Your task to perform on an android device: search for starred emails in the gmail app Image 0: 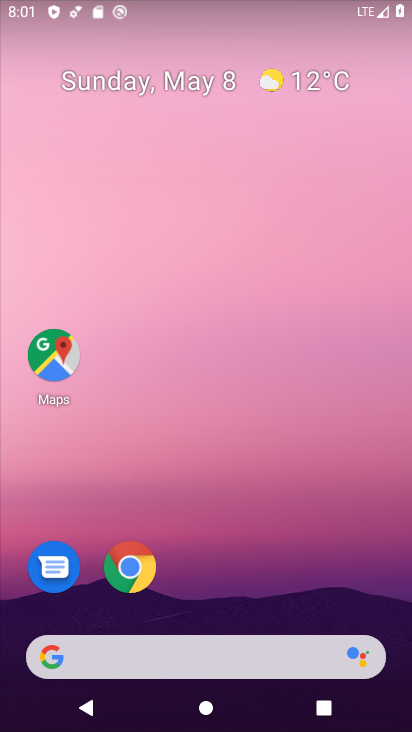
Step 0: click (387, 292)
Your task to perform on an android device: search for starred emails in the gmail app Image 1: 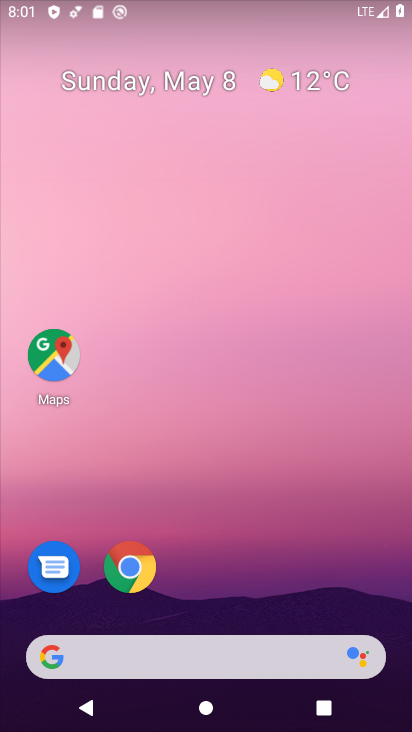
Step 1: drag from (156, 651) to (187, 125)
Your task to perform on an android device: search for starred emails in the gmail app Image 2: 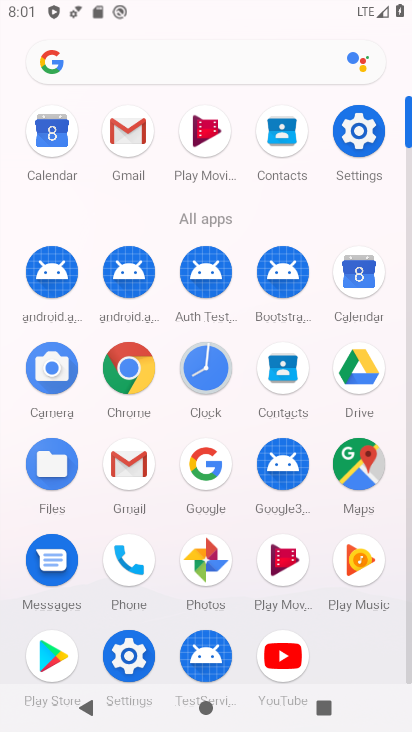
Step 2: click (118, 467)
Your task to perform on an android device: search for starred emails in the gmail app Image 3: 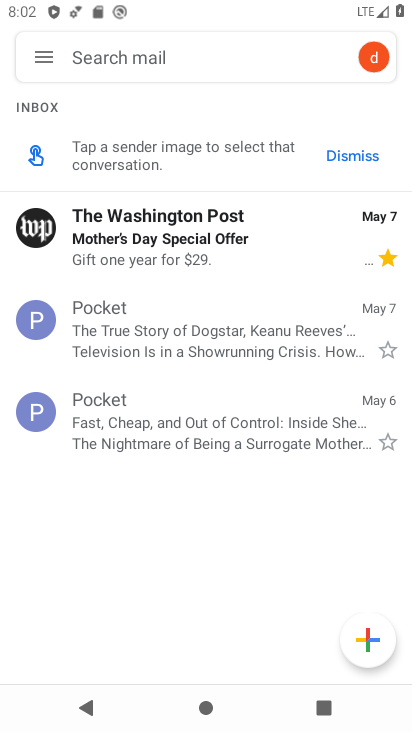
Step 3: click (41, 53)
Your task to perform on an android device: search for starred emails in the gmail app Image 4: 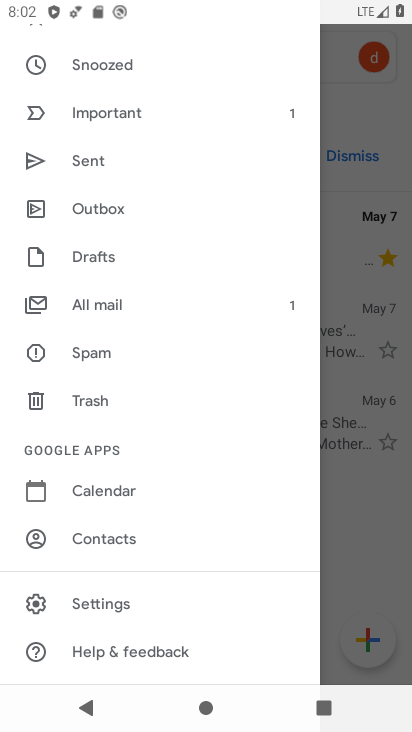
Step 4: drag from (170, 163) to (138, 481)
Your task to perform on an android device: search for starred emails in the gmail app Image 5: 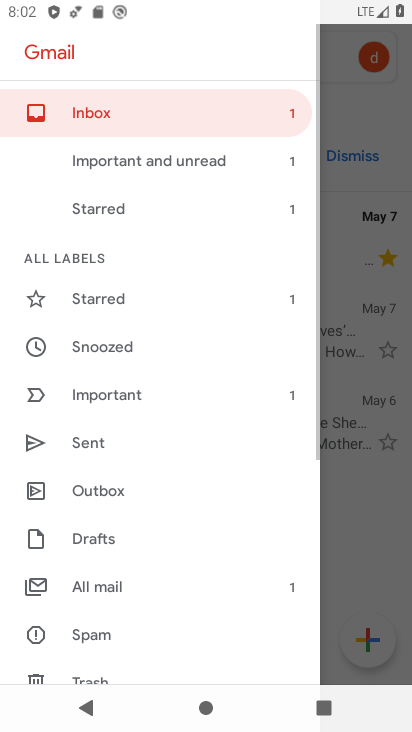
Step 5: click (114, 303)
Your task to perform on an android device: search for starred emails in the gmail app Image 6: 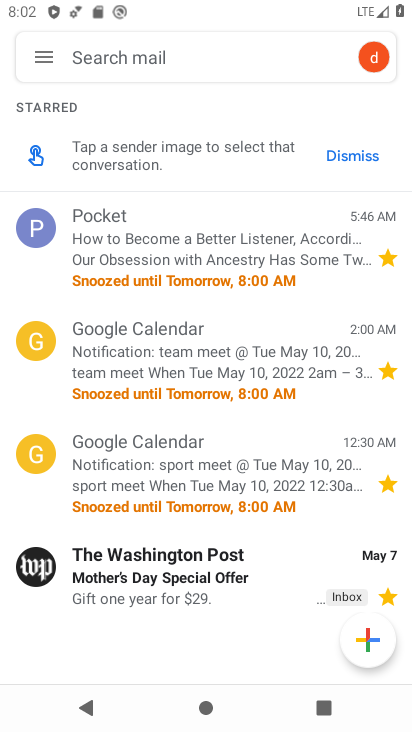
Step 6: task complete